Your task to perform on an android device: search for starred emails in the gmail app Image 0: 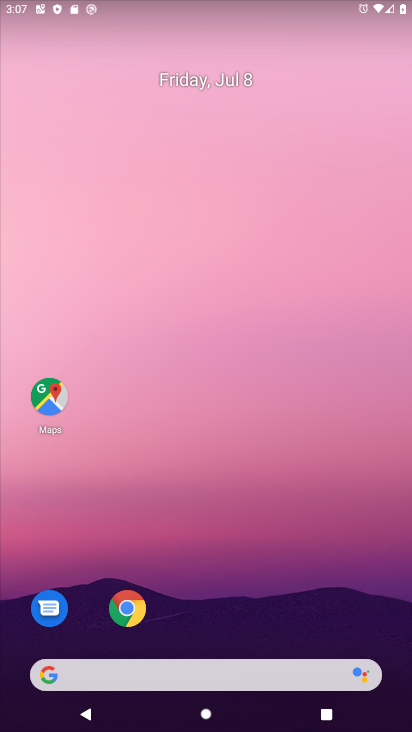
Step 0: drag from (288, 675) to (315, 13)
Your task to perform on an android device: search for starred emails in the gmail app Image 1: 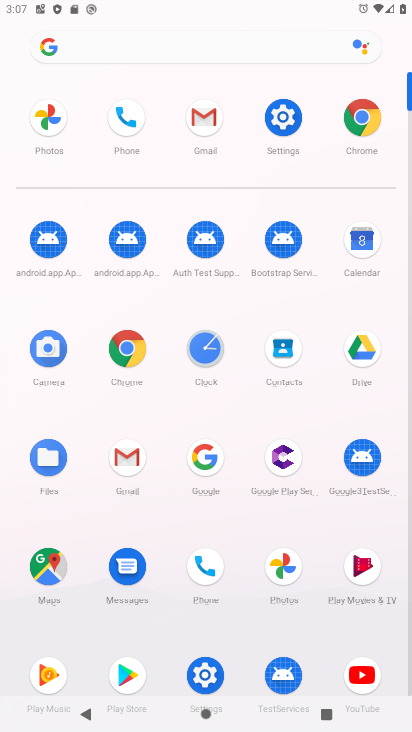
Step 1: click (126, 462)
Your task to perform on an android device: search for starred emails in the gmail app Image 2: 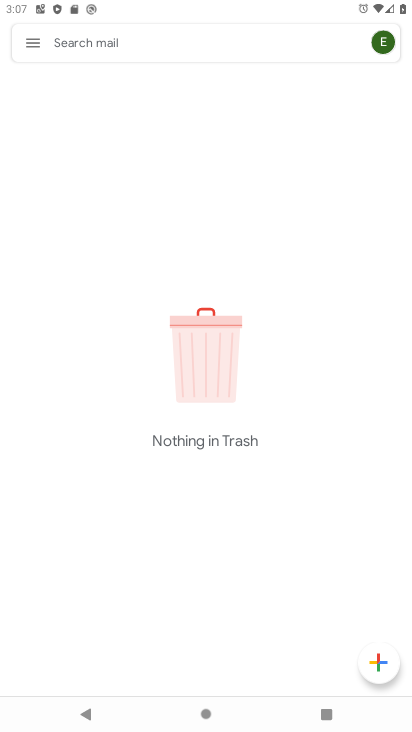
Step 2: click (28, 32)
Your task to perform on an android device: search for starred emails in the gmail app Image 3: 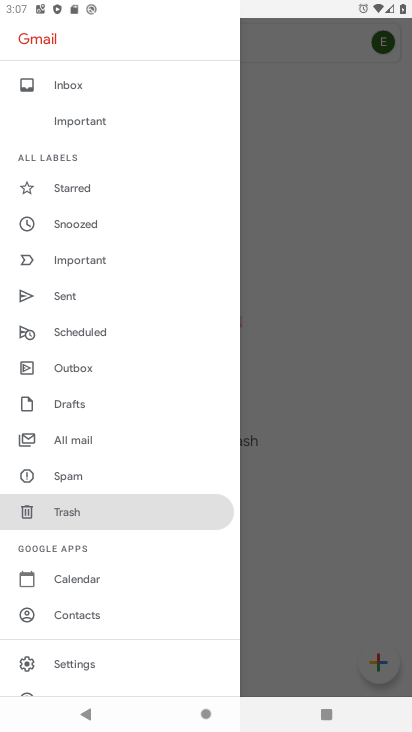
Step 3: click (81, 191)
Your task to perform on an android device: search for starred emails in the gmail app Image 4: 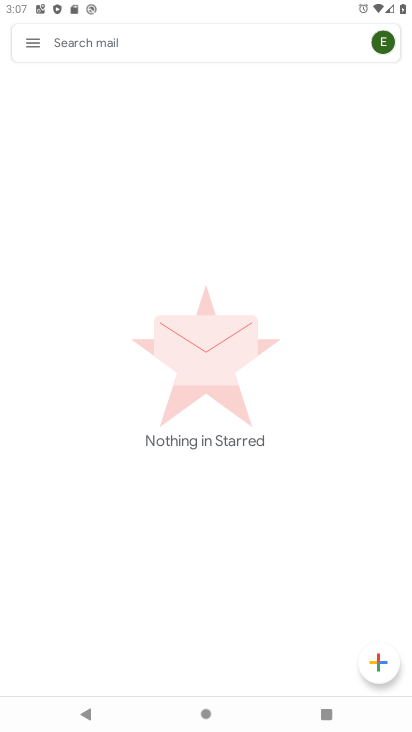
Step 4: task complete